Your task to perform on an android device: Go to wifi settings Image 0: 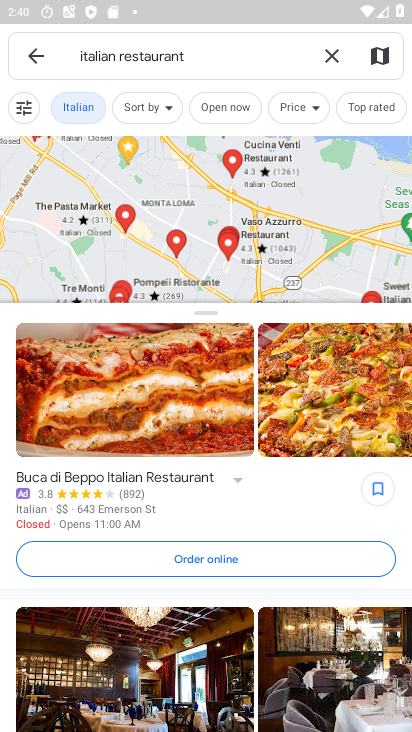
Step 0: press home button
Your task to perform on an android device: Go to wifi settings Image 1: 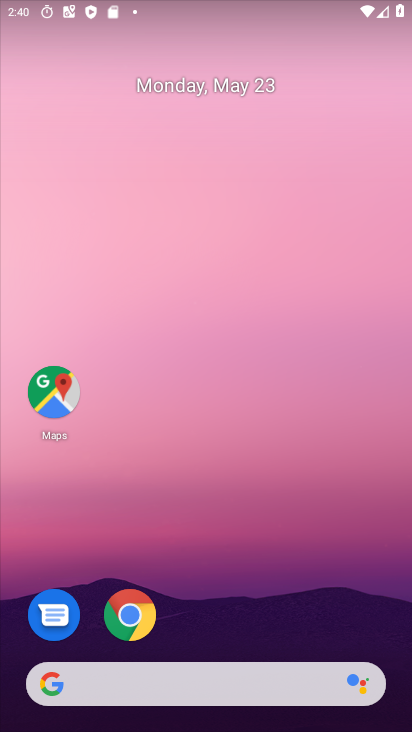
Step 1: drag from (248, 637) to (292, 13)
Your task to perform on an android device: Go to wifi settings Image 2: 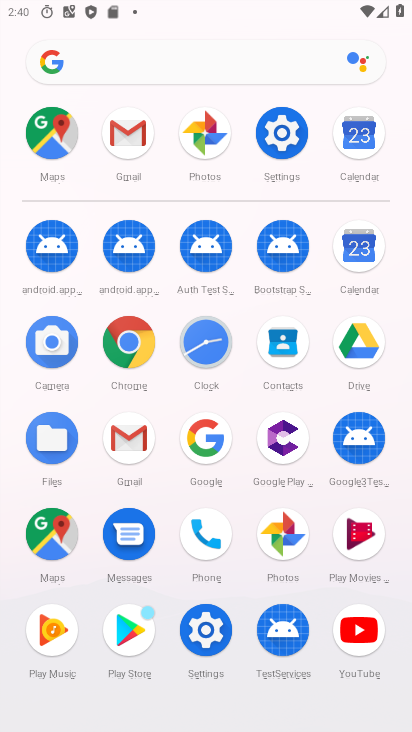
Step 2: click (281, 128)
Your task to perform on an android device: Go to wifi settings Image 3: 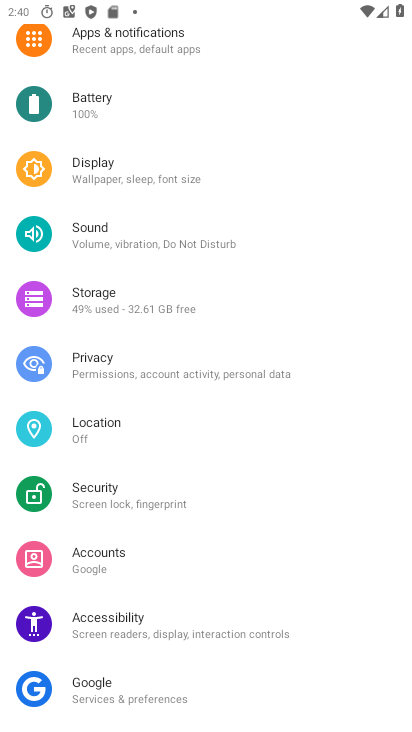
Step 3: drag from (251, 145) to (247, 618)
Your task to perform on an android device: Go to wifi settings Image 4: 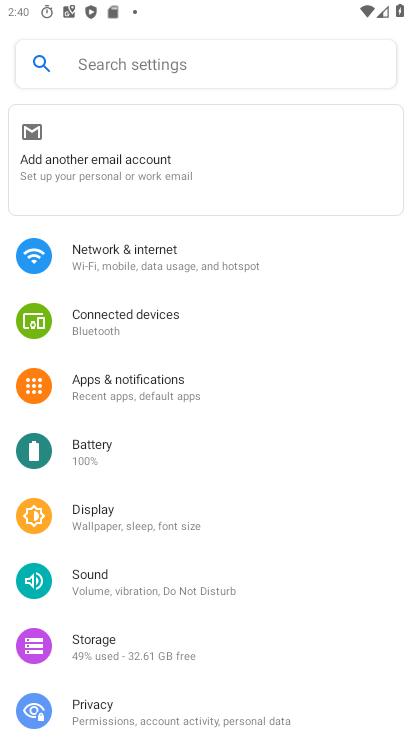
Step 4: click (125, 265)
Your task to perform on an android device: Go to wifi settings Image 5: 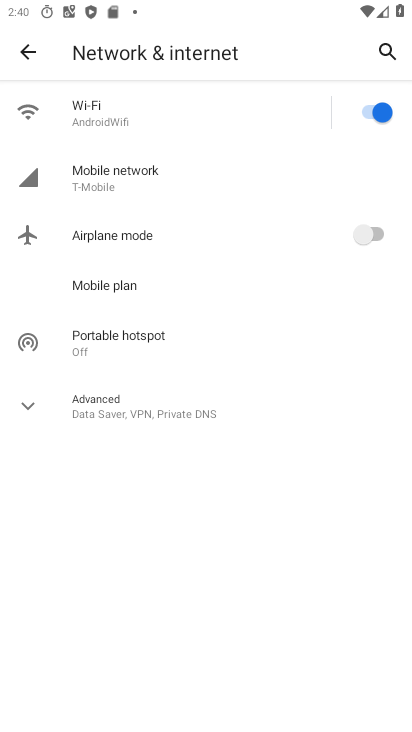
Step 5: click (88, 115)
Your task to perform on an android device: Go to wifi settings Image 6: 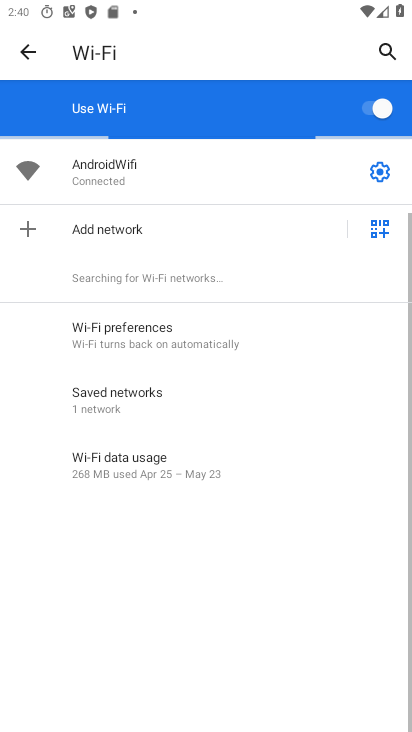
Step 6: task complete